Your task to perform on an android device: Open maps Image 0: 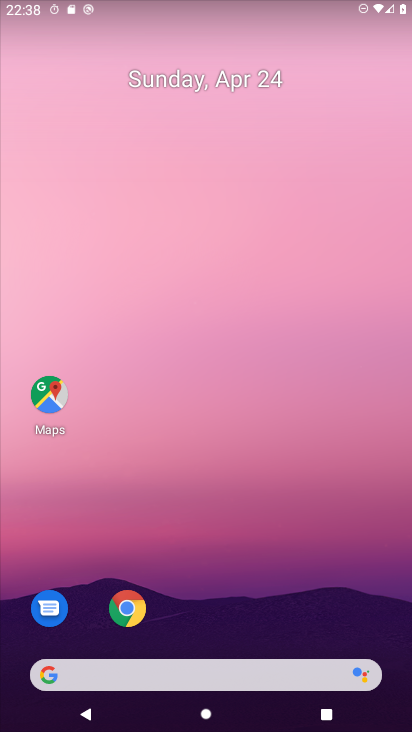
Step 0: click (50, 390)
Your task to perform on an android device: Open maps Image 1: 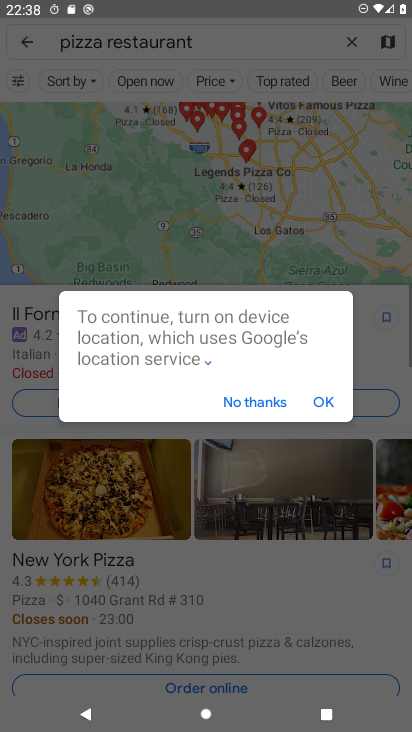
Step 1: click (269, 393)
Your task to perform on an android device: Open maps Image 2: 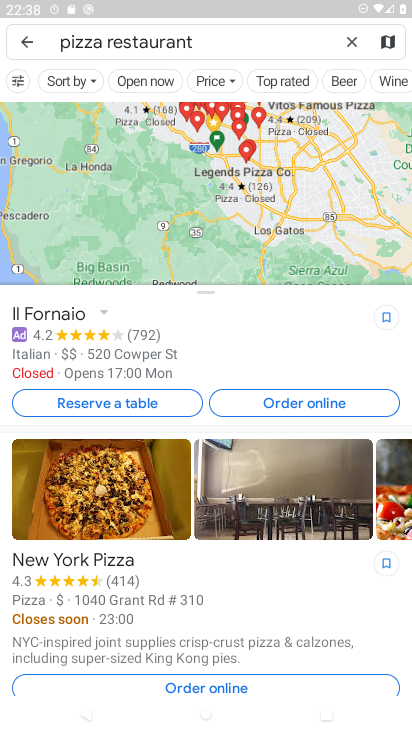
Step 2: task complete